Your task to perform on an android device: Open calendar and show me the third week of next month Image 0: 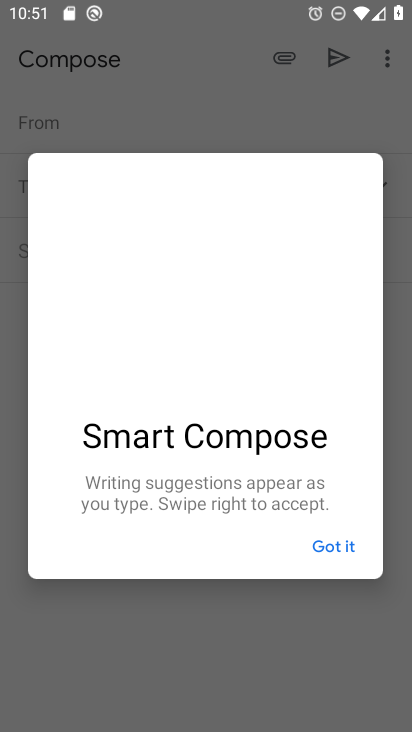
Step 0: drag from (366, 612) to (398, 519)
Your task to perform on an android device: Open calendar and show me the third week of next month Image 1: 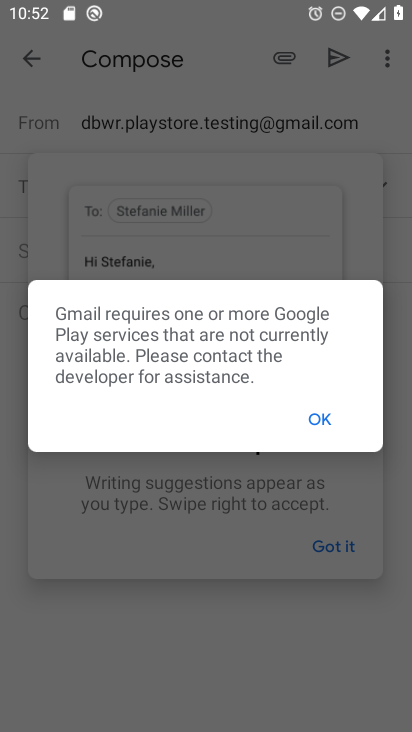
Step 1: press home button
Your task to perform on an android device: Open calendar and show me the third week of next month Image 2: 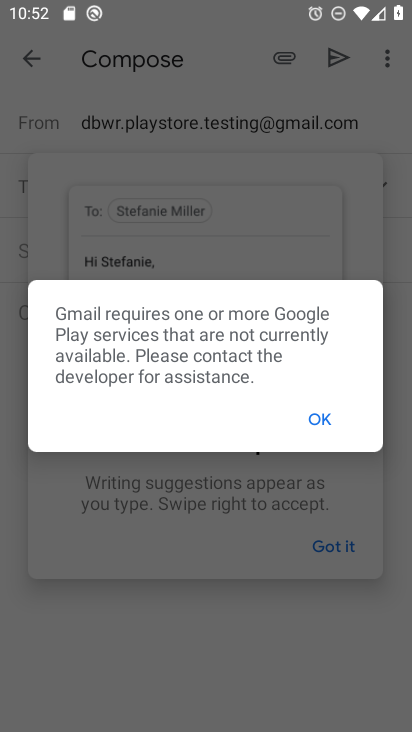
Step 2: drag from (398, 519) to (409, 589)
Your task to perform on an android device: Open calendar and show me the third week of next month Image 3: 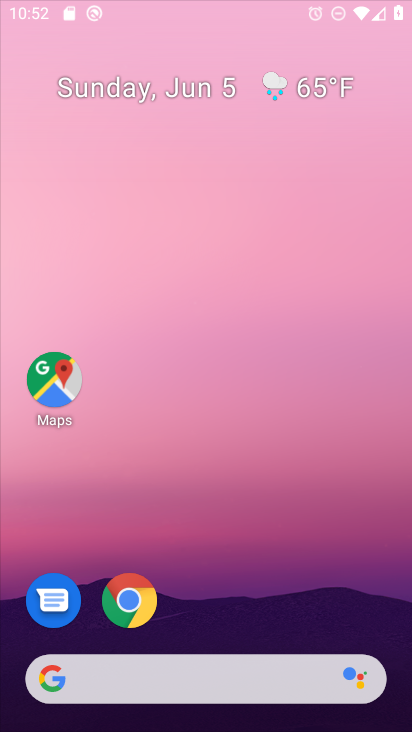
Step 3: drag from (349, 638) to (373, 462)
Your task to perform on an android device: Open calendar and show me the third week of next month Image 4: 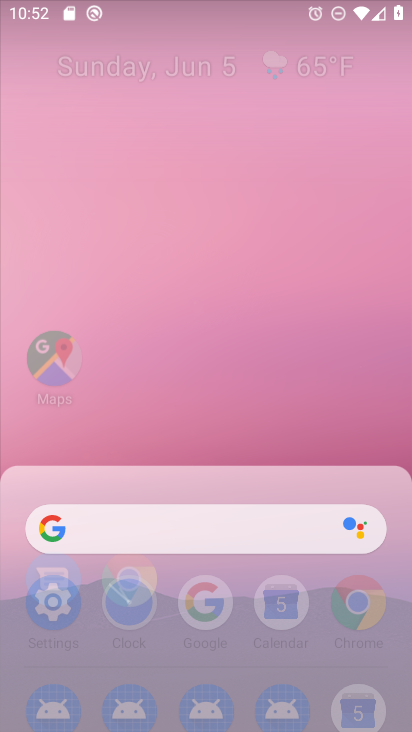
Step 4: click (326, 89)
Your task to perform on an android device: Open calendar and show me the third week of next month Image 5: 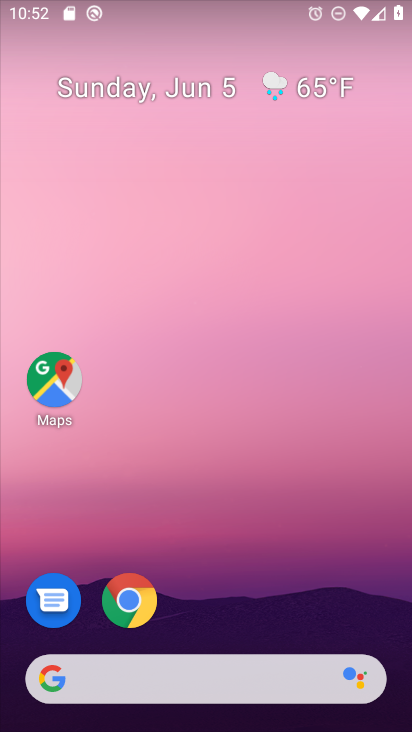
Step 5: drag from (393, 652) to (264, 69)
Your task to perform on an android device: Open calendar and show me the third week of next month Image 6: 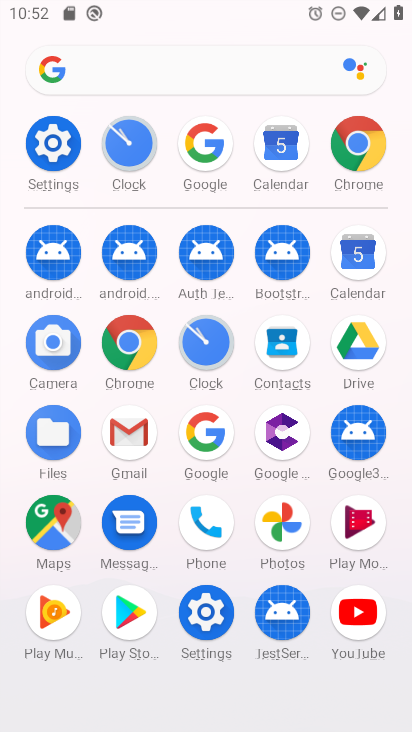
Step 6: click (345, 265)
Your task to perform on an android device: Open calendar and show me the third week of next month Image 7: 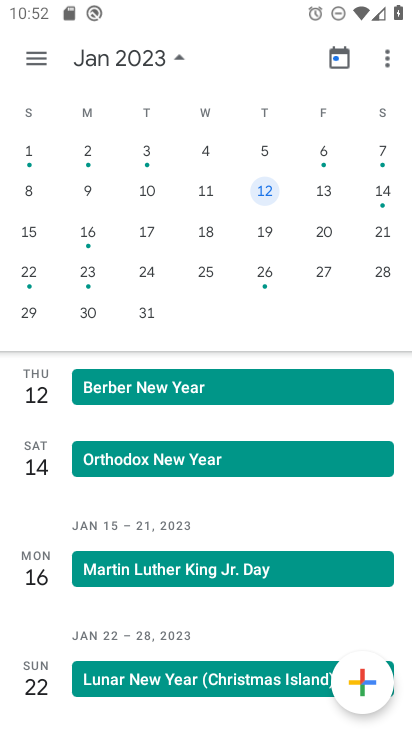
Step 7: drag from (392, 175) to (63, 224)
Your task to perform on an android device: Open calendar and show me the third week of next month Image 8: 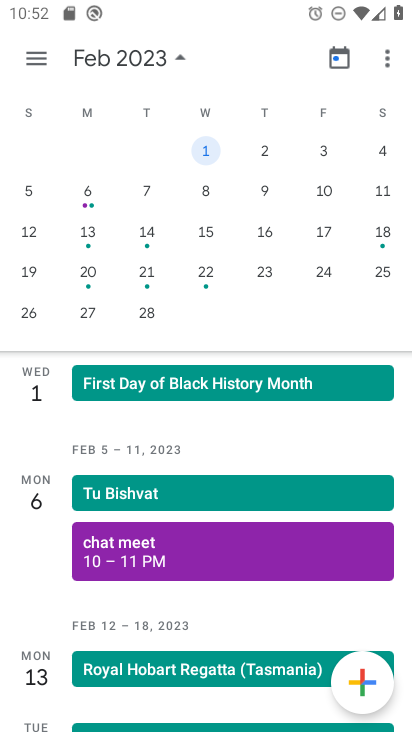
Step 8: click (148, 277)
Your task to perform on an android device: Open calendar and show me the third week of next month Image 9: 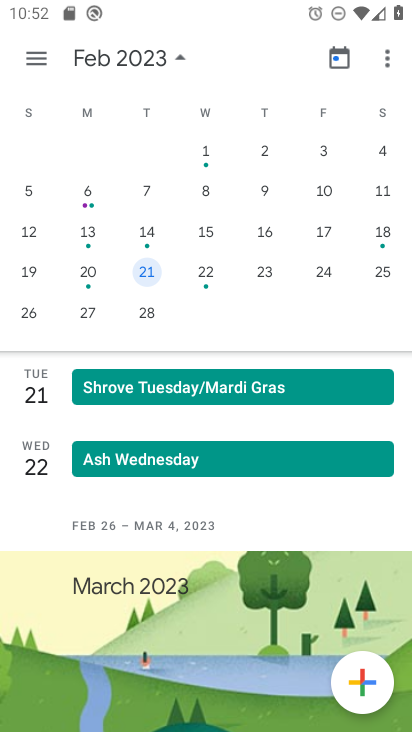
Step 9: task complete